Your task to perform on an android device: Open Chrome and go to settings Image 0: 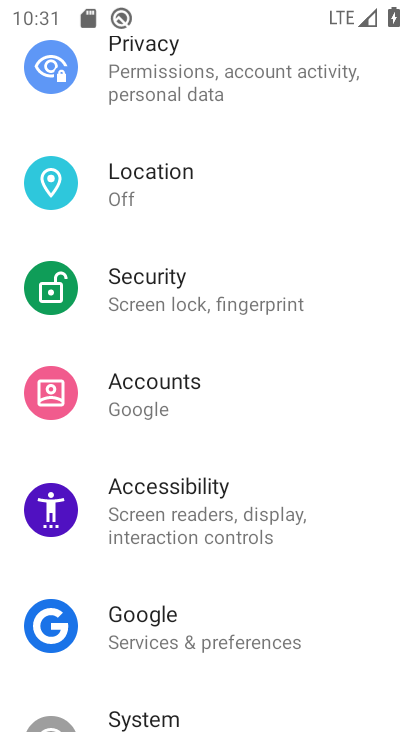
Step 0: press home button
Your task to perform on an android device: Open Chrome and go to settings Image 1: 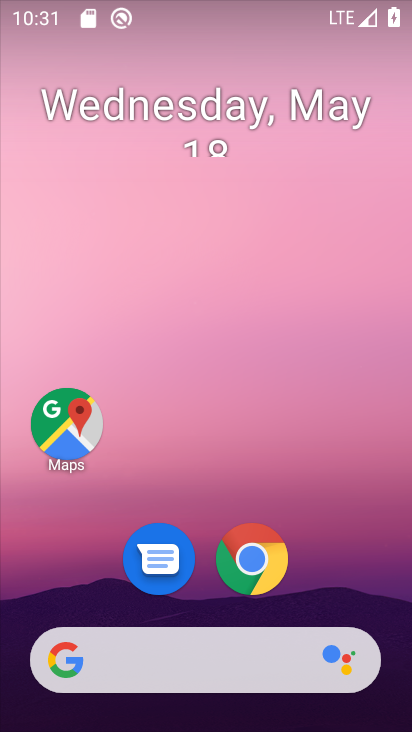
Step 1: click (263, 561)
Your task to perform on an android device: Open Chrome and go to settings Image 2: 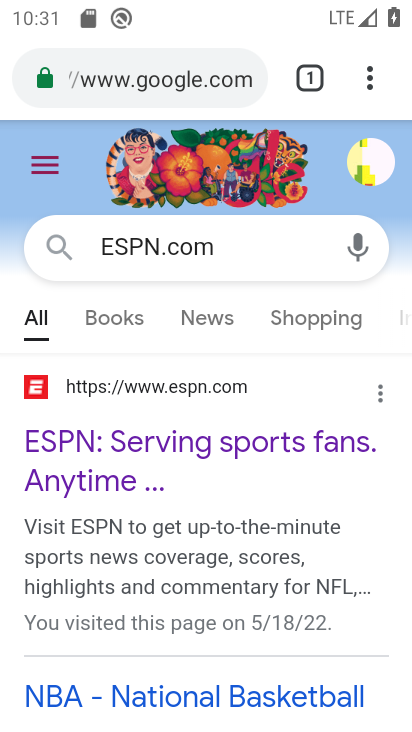
Step 2: click (369, 72)
Your task to perform on an android device: Open Chrome and go to settings Image 3: 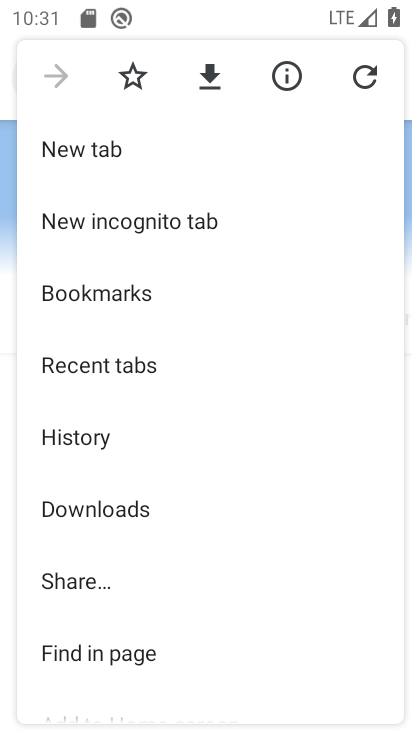
Step 3: drag from (115, 546) to (163, 248)
Your task to perform on an android device: Open Chrome and go to settings Image 4: 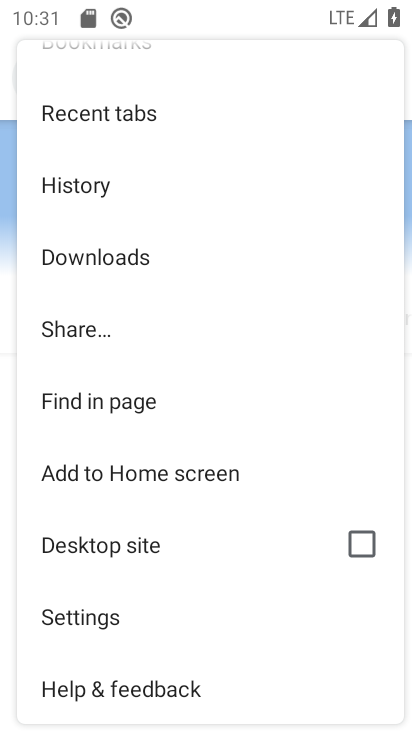
Step 4: click (102, 611)
Your task to perform on an android device: Open Chrome and go to settings Image 5: 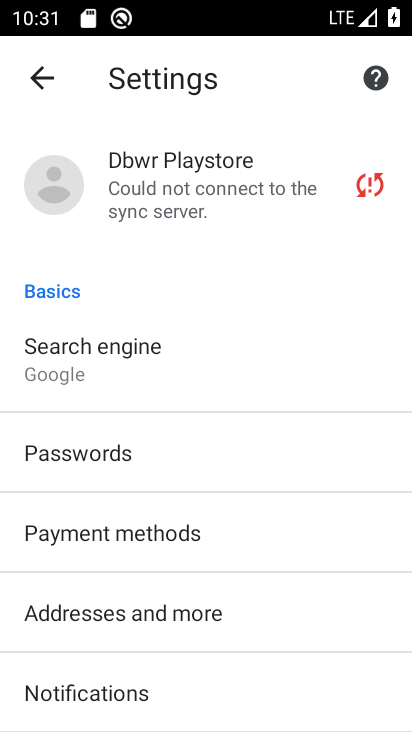
Step 5: task complete